Your task to perform on an android device: turn on airplane mode Image 0: 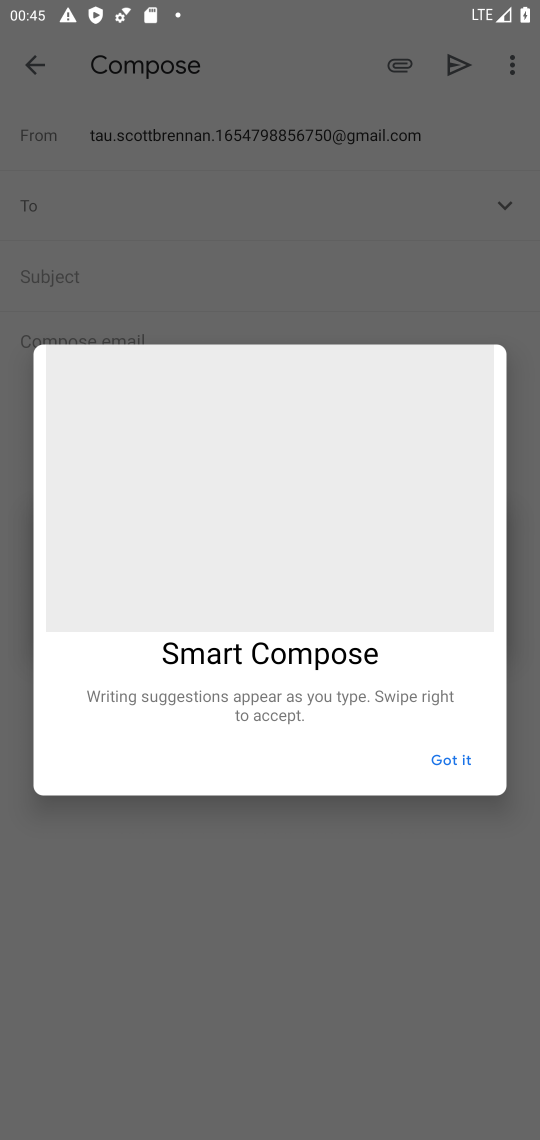
Step 0: press home button
Your task to perform on an android device: turn on airplane mode Image 1: 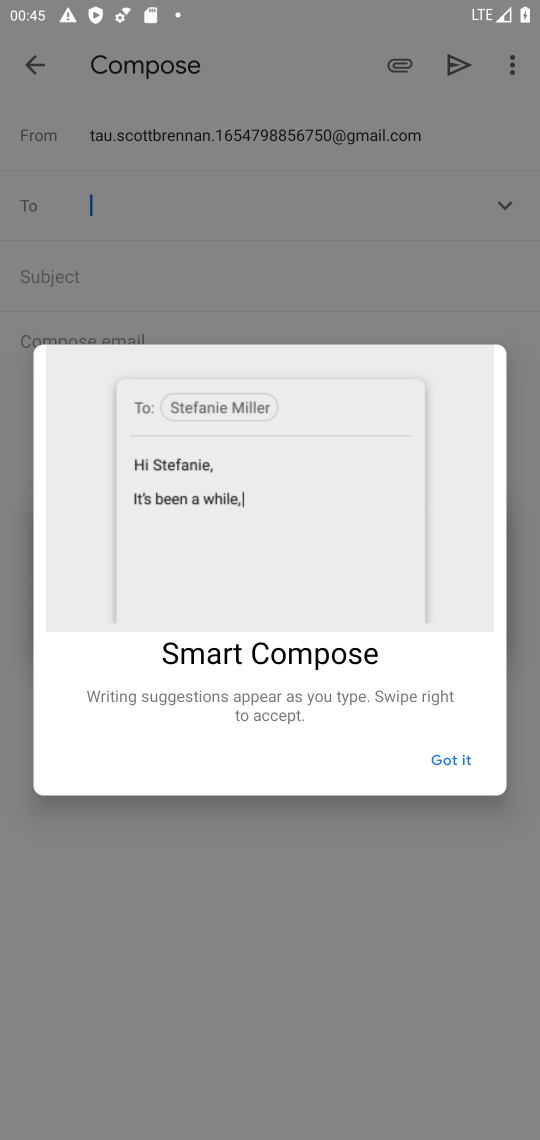
Step 1: drag from (358, 77) to (170, 1136)
Your task to perform on an android device: turn on airplane mode Image 2: 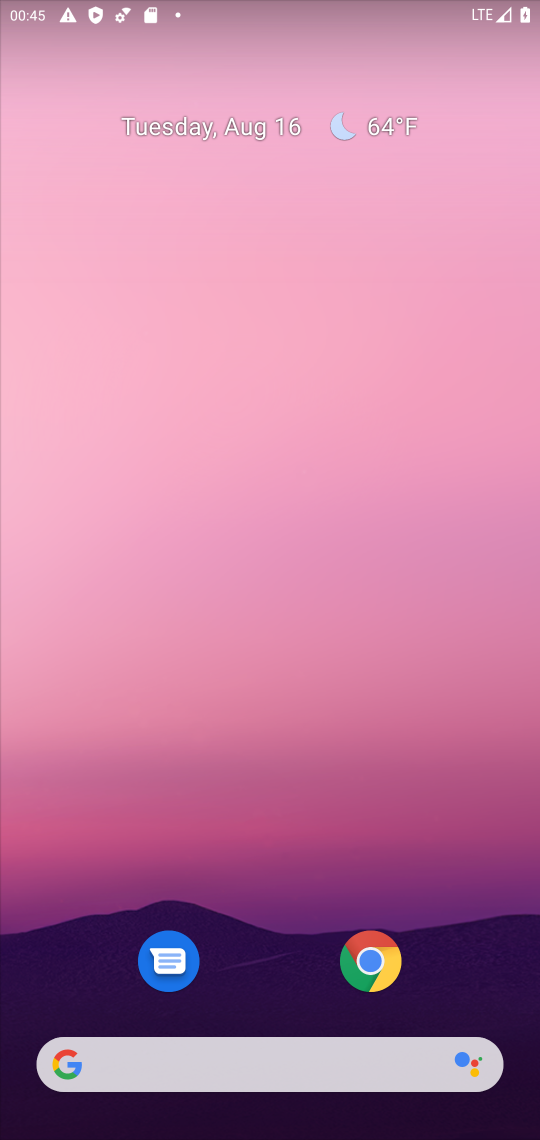
Step 2: drag from (493, 58) to (341, 980)
Your task to perform on an android device: turn on airplane mode Image 3: 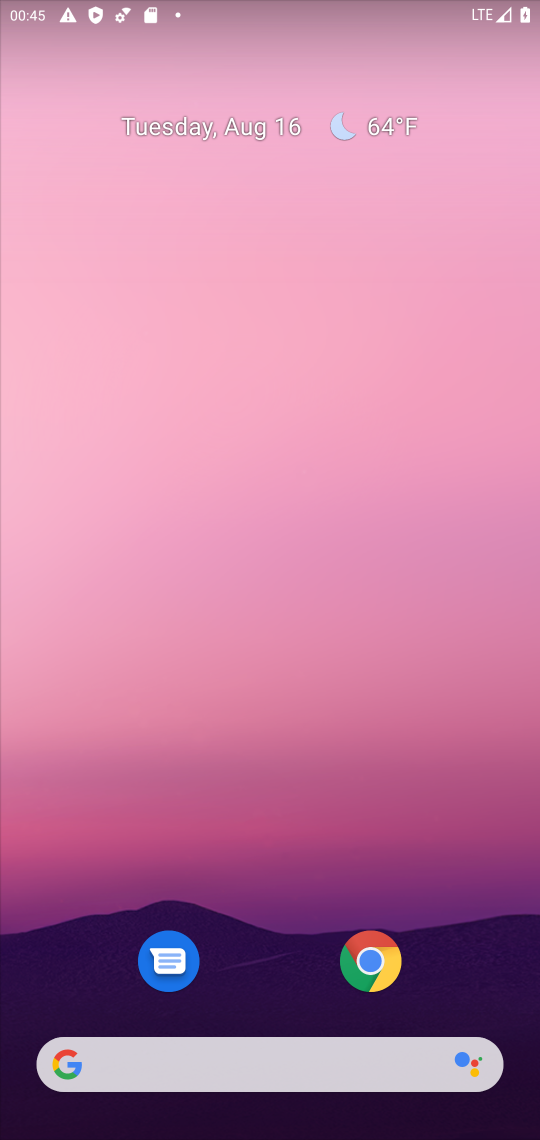
Step 3: drag from (252, 8) to (344, 1078)
Your task to perform on an android device: turn on airplane mode Image 4: 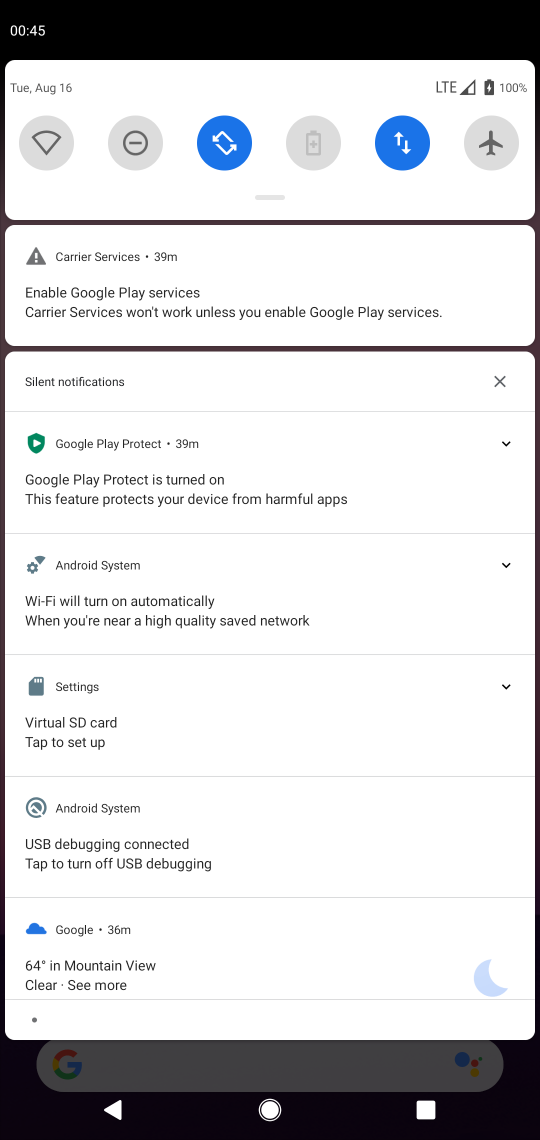
Step 4: click (497, 136)
Your task to perform on an android device: turn on airplane mode Image 5: 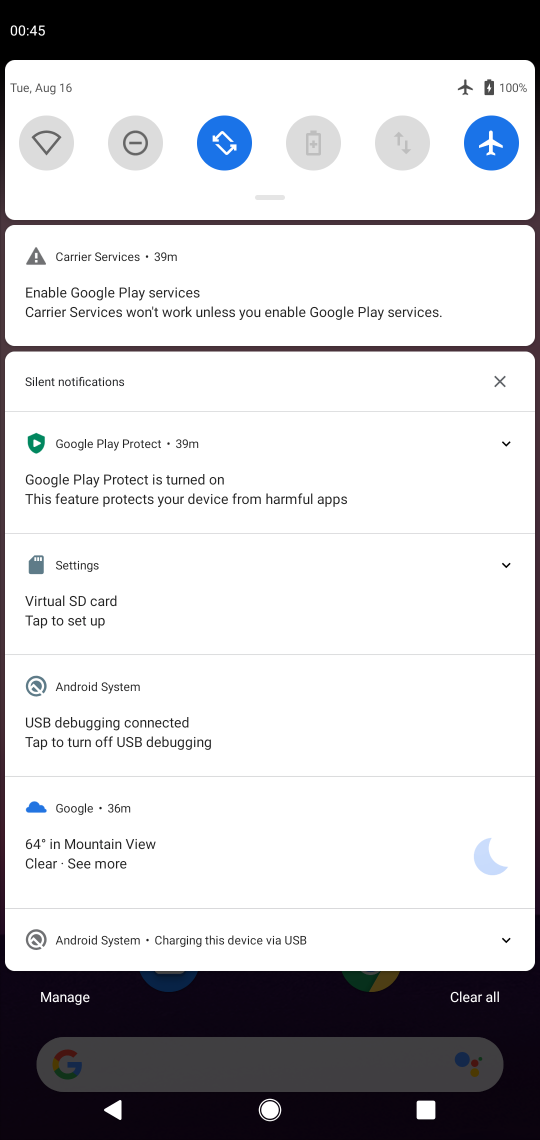
Step 5: task complete